Your task to perform on an android device: set the stopwatch Image 0: 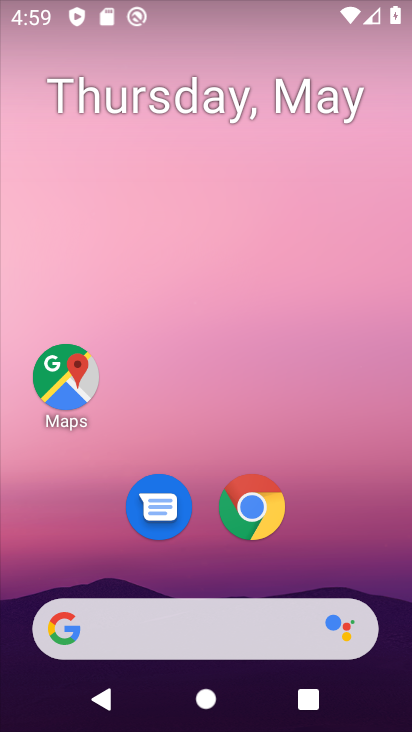
Step 0: drag from (344, 537) to (267, 152)
Your task to perform on an android device: set the stopwatch Image 1: 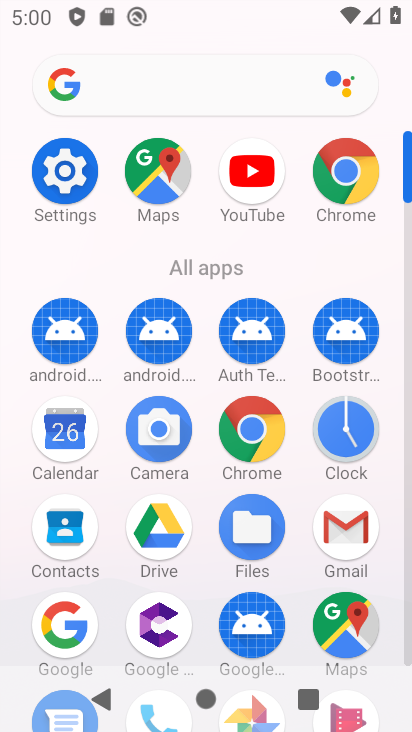
Step 1: click (345, 431)
Your task to perform on an android device: set the stopwatch Image 2: 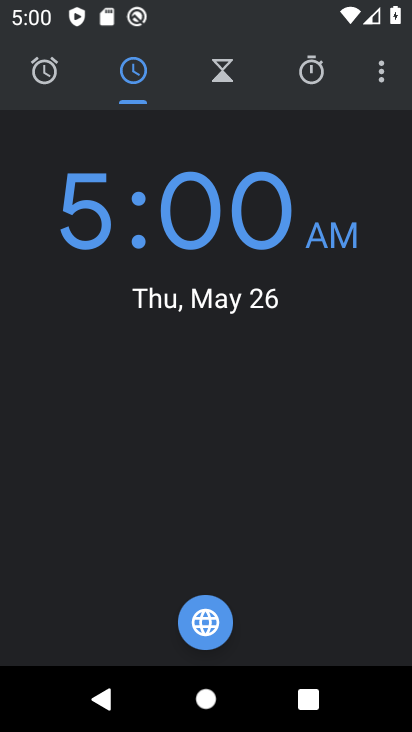
Step 2: click (301, 60)
Your task to perform on an android device: set the stopwatch Image 3: 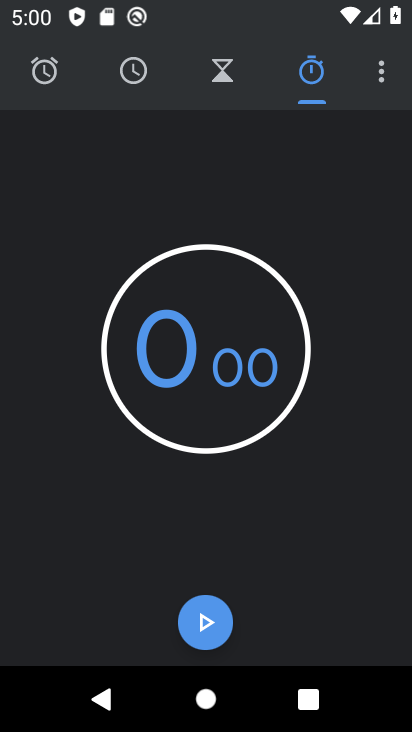
Step 3: click (209, 613)
Your task to perform on an android device: set the stopwatch Image 4: 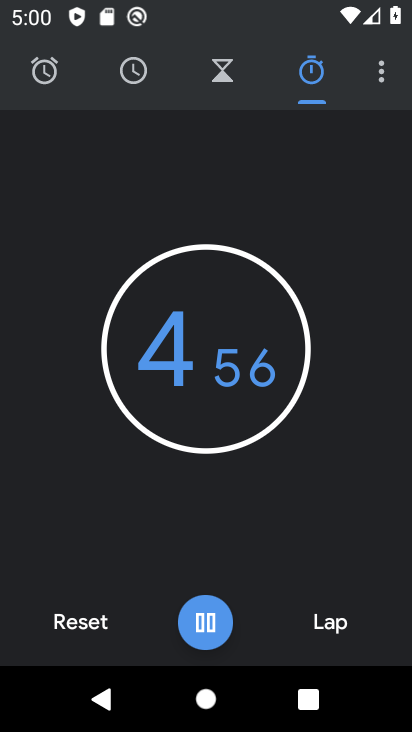
Step 4: click (209, 613)
Your task to perform on an android device: set the stopwatch Image 5: 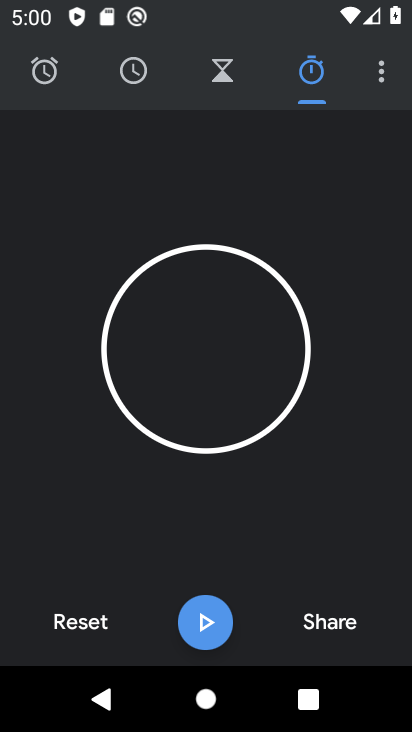
Step 5: task complete